Your task to perform on an android device: Open the stopwatch Image 0: 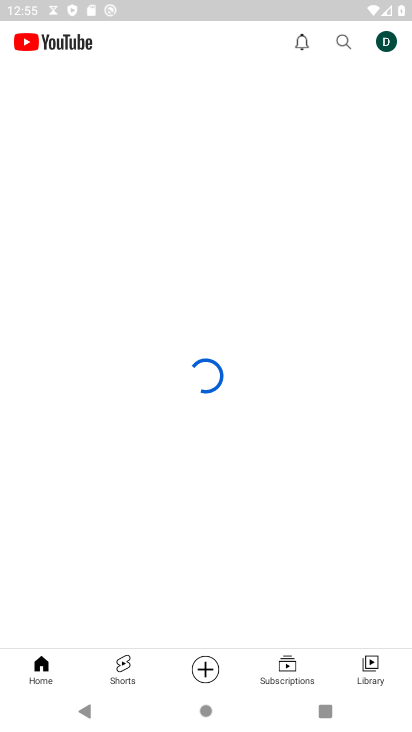
Step 0: press home button
Your task to perform on an android device: Open the stopwatch Image 1: 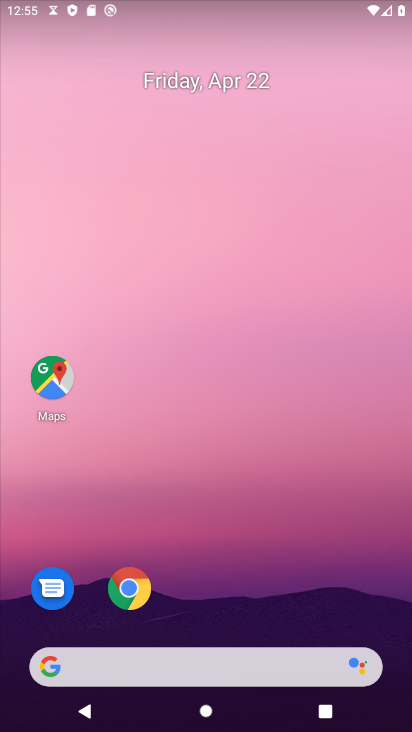
Step 1: drag from (254, 685) to (184, 110)
Your task to perform on an android device: Open the stopwatch Image 2: 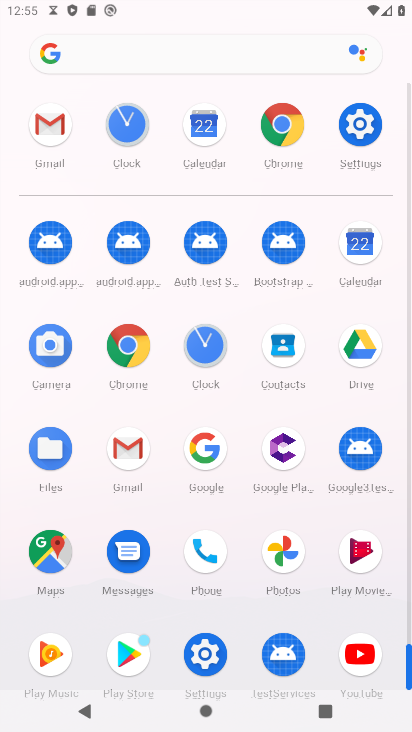
Step 2: click (123, 134)
Your task to perform on an android device: Open the stopwatch Image 3: 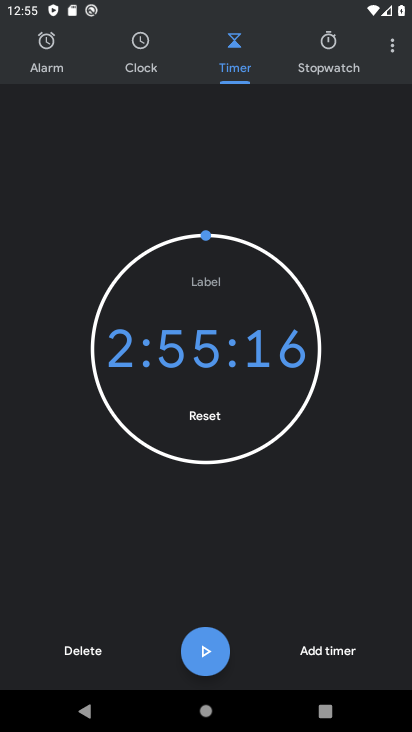
Step 3: click (326, 55)
Your task to perform on an android device: Open the stopwatch Image 4: 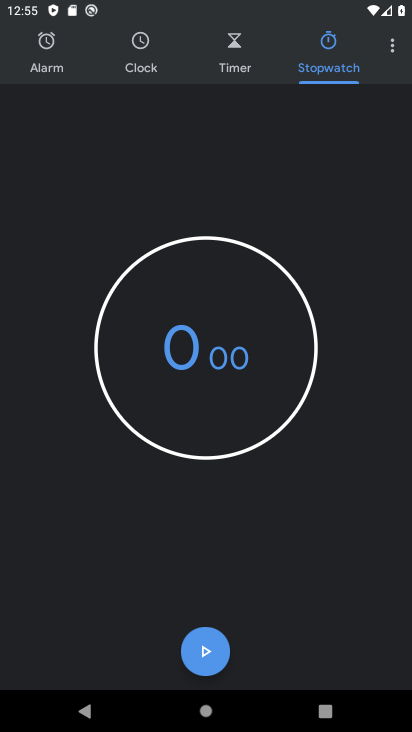
Step 4: click (192, 672)
Your task to perform on an android device: Open the stopwatch Image 5: 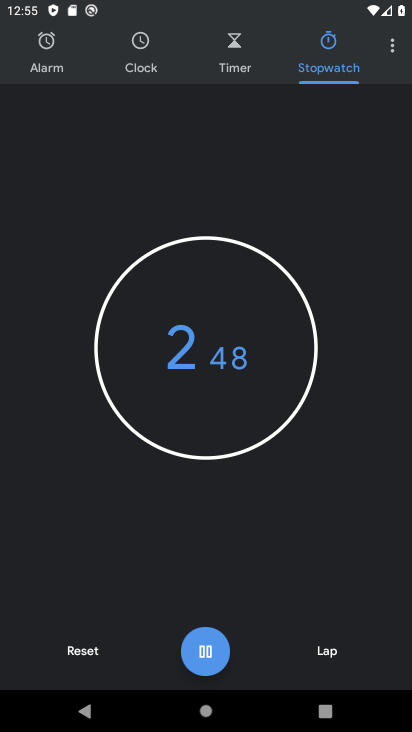
Step 5: click (207, 657)
Your task to perform on an android device: Open the stopwatch Image 6: 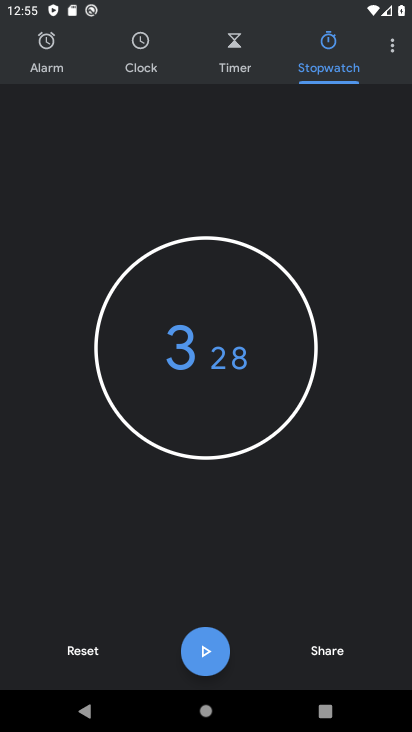
Step 6: task complete